Your task to perform on an android device: open a bookmark in the chrome app Image 0: 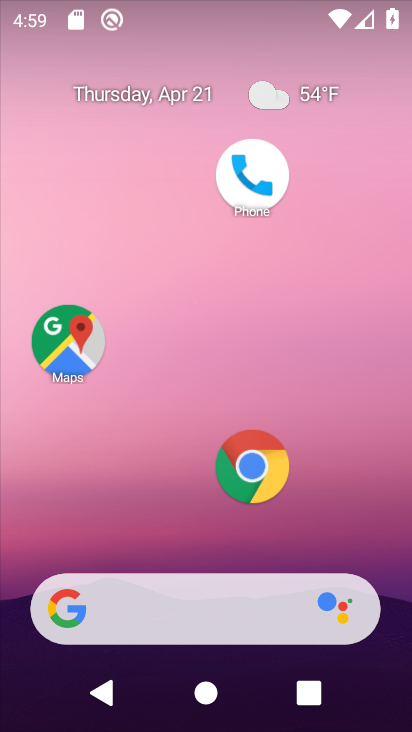
Step 0: click (257, 466)
Your task to perform on an android device: open a bookmark in the chrome app Image 1: 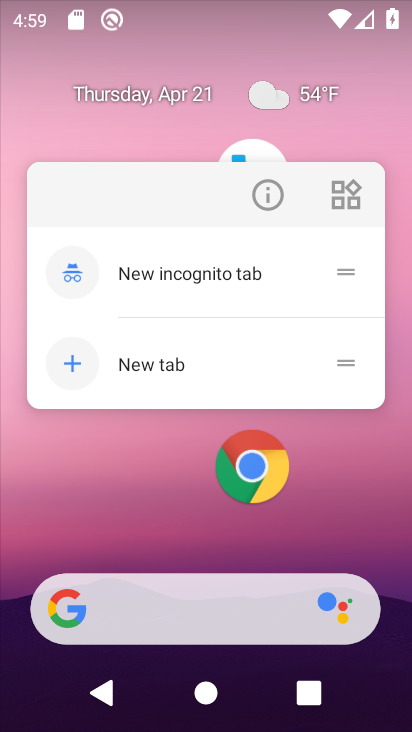
Step 1: click (264, 470)
Your task to perform on an android device: open a bookmark in the chrome app Image 2: 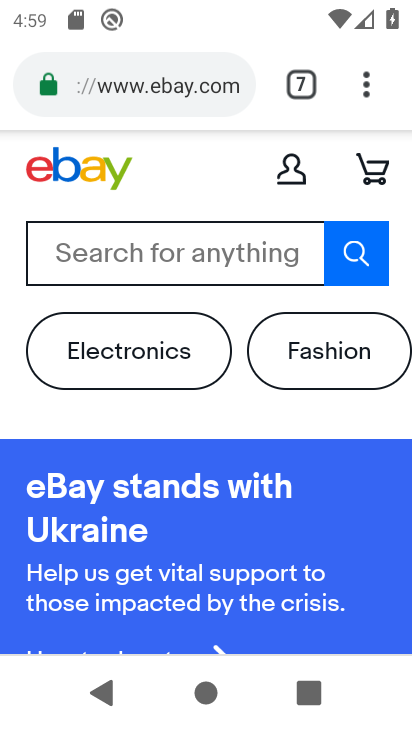
Step 2: click (367, 83)
Your task to perform on an android device: open a bookmark in the chrome app Image 3: 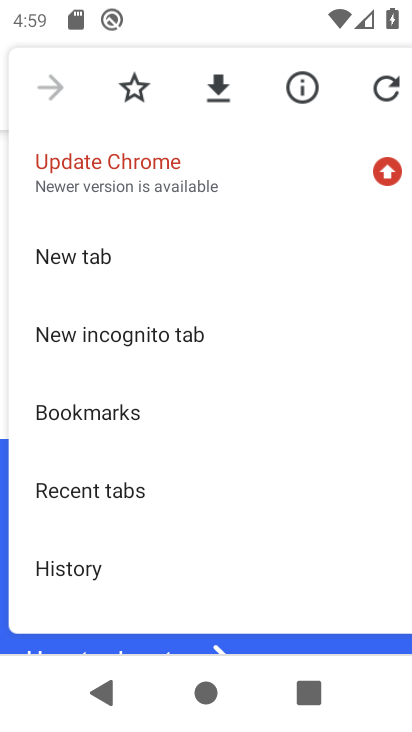
Step 3: click (153, 419)
Your task to perform on an android device: open a bookmark in the chrome app Image 4: 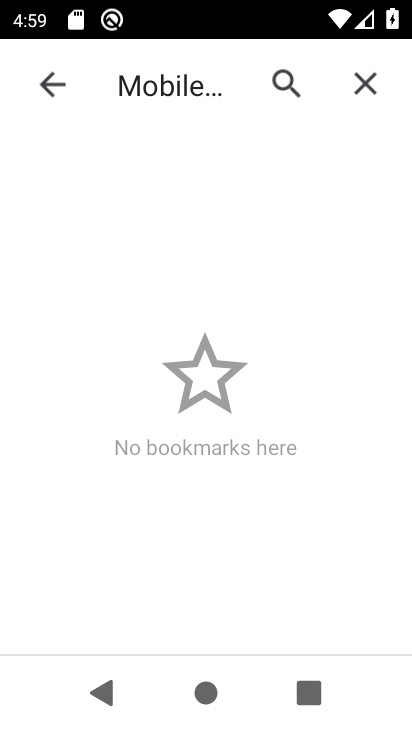
Step 4: task complete